Your task to perform on an android device: Open the Play Movies app and select the watchlist tab. Image 0: 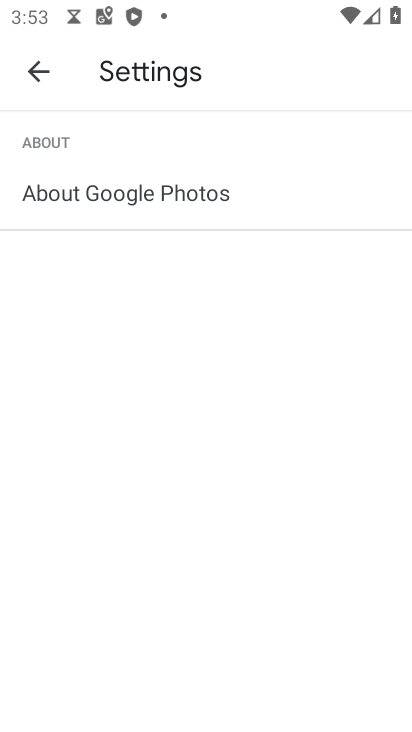
Step 0: press home button
Your task to perform on an android device: Open the Play Movies app and select the watchlist tab. Image 1: 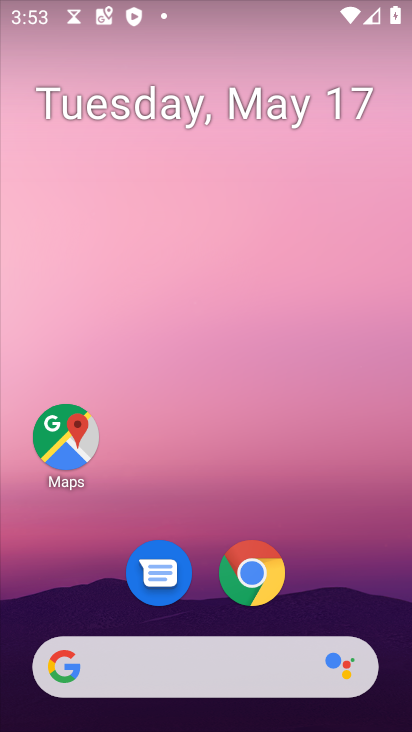
Step 1: drag from (347, 579) to (283, 144)
Your task to perform on an android device: Open the Play Movies app and select the watchlist tab. Image 2: 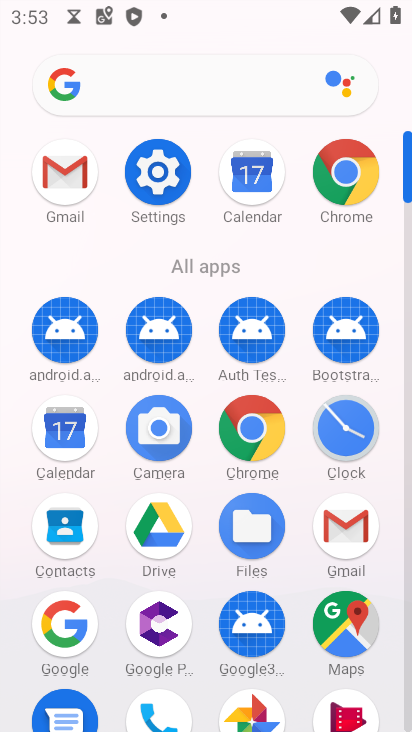
Step 2: click (343, 705)
Your task to perform on an android device: Open the Play Movies app and select the watchlist tab. Image 3: 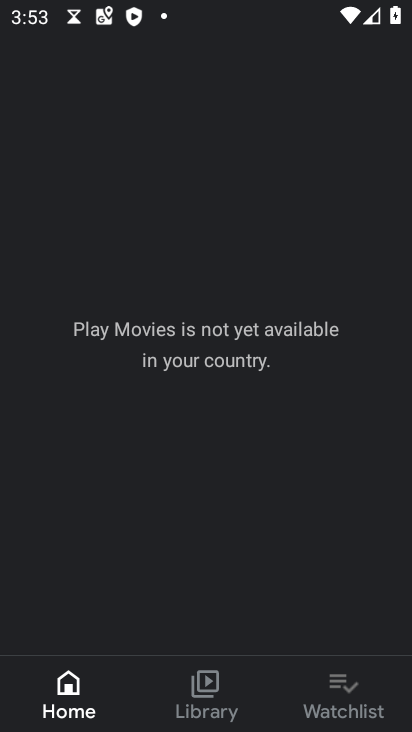
Step 3: click (343, 705)
Your task to perform on an android device: Open the Play Movies app and select the watchlist tab. Image 4: 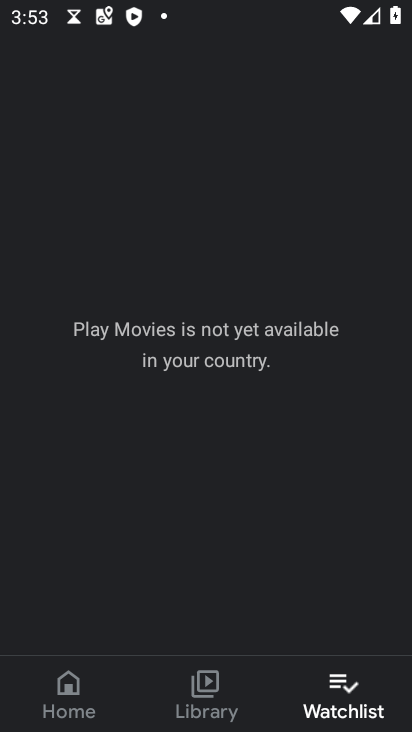
Step 4: task complete